Your task to perform on an android device: change alarm snooze length Image 0: 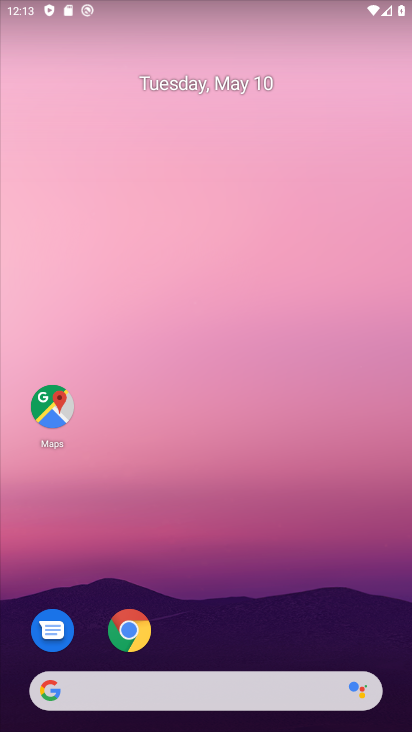
Step 0: drag from (216, 724) to (219, 198)
Your task to perform on an android device: change alarm snooze length Image 1: 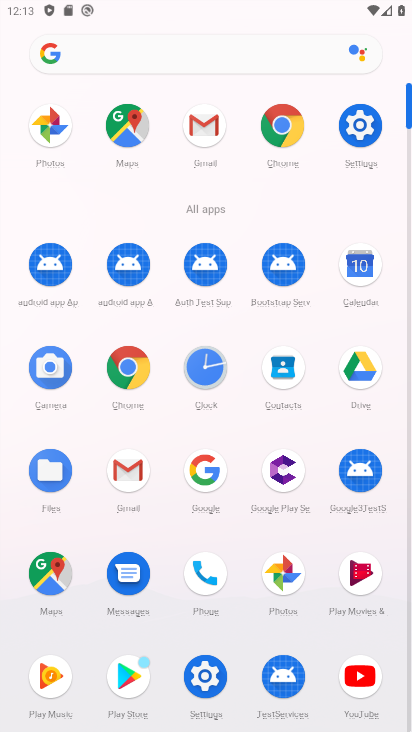
Step 1: click (207, 368)
Your task to perform on an android device: change alarm snooze length Image 2: 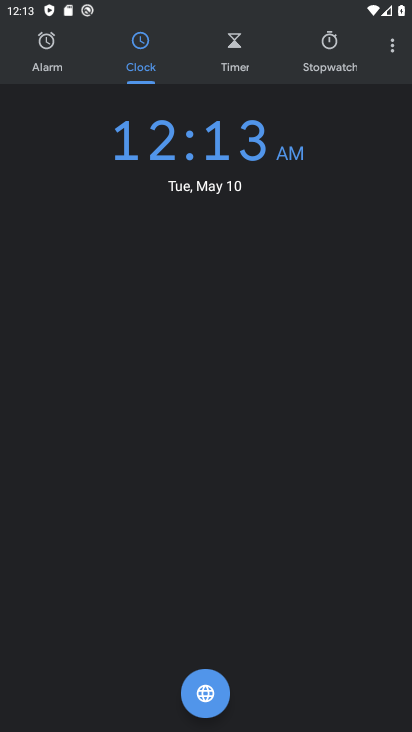
Step 2: click (394, 48)
Your task to perform on an android device: change alarm snooze length Image 3: 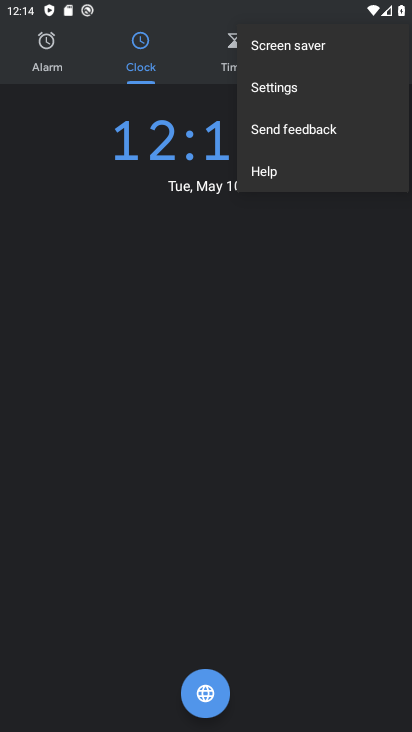
Step 3: click (270, 84)
Your task to perform on an android device: change alarm snooze length Image 4: 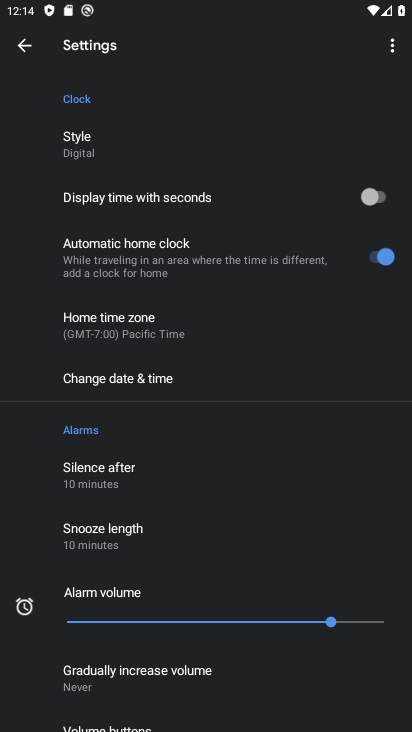
Step 4: drag from (178, 557) to (174, 253)
Your task to perform on an android device: change alarm snooze length Image 5: 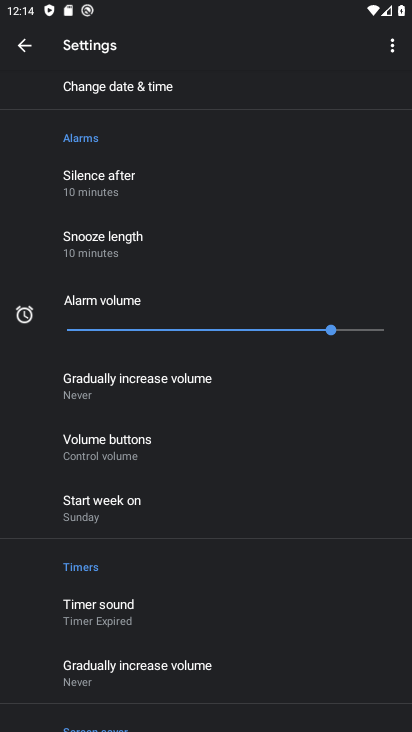
Step 5: click (115, 243)
Your task to perform on an android device: change alarm snooze length Image 6: 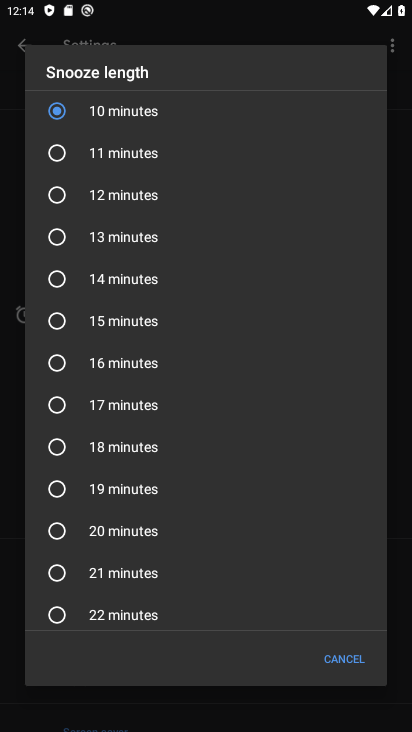
Step 6: click (57, 449)
Your task to perform on an android device: change alarm snooze length Image 7: 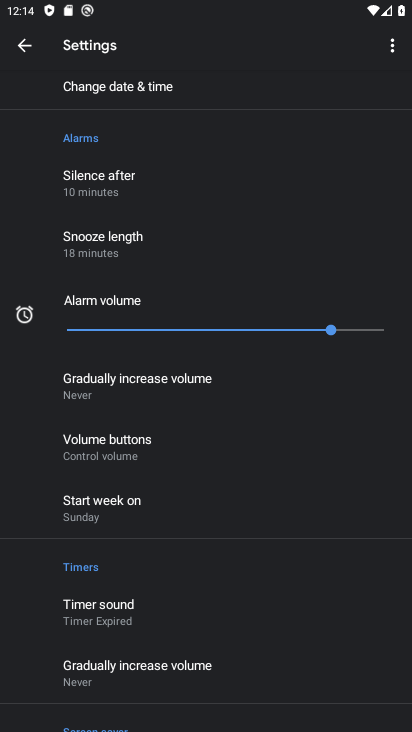
Step 7: task complete